Your task to perform on an android device: turn on airplane mode Image 0: 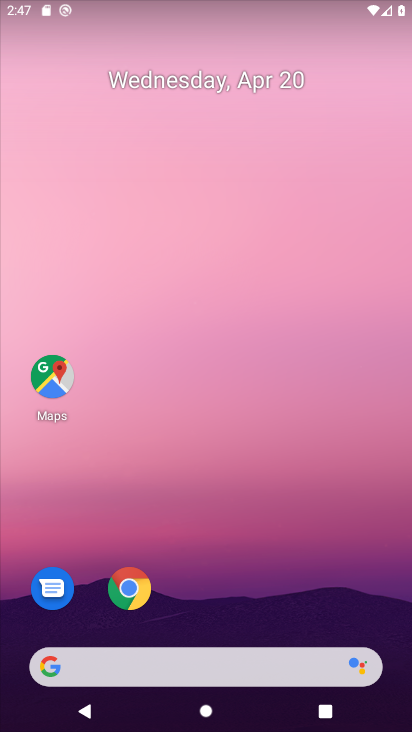
Step 0: drag from (261, 551) to (289, 88)
Your task to perform on an android device: turn on airplane mode Image 1: 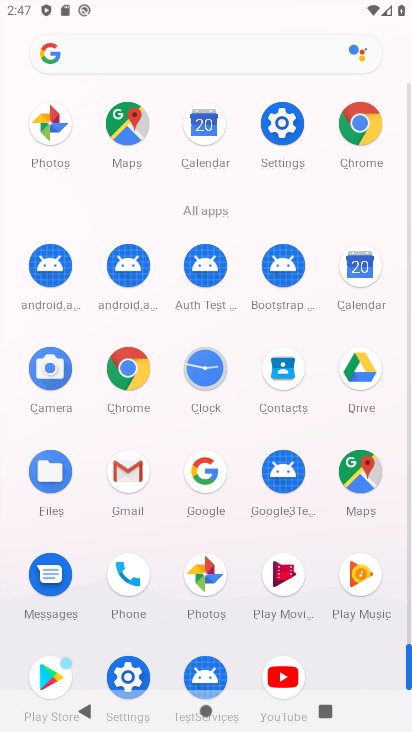
Step 1: drag from (202, 6) to (130, 645)
Your task to perform on an android device: turn on airplane mode Image 2: 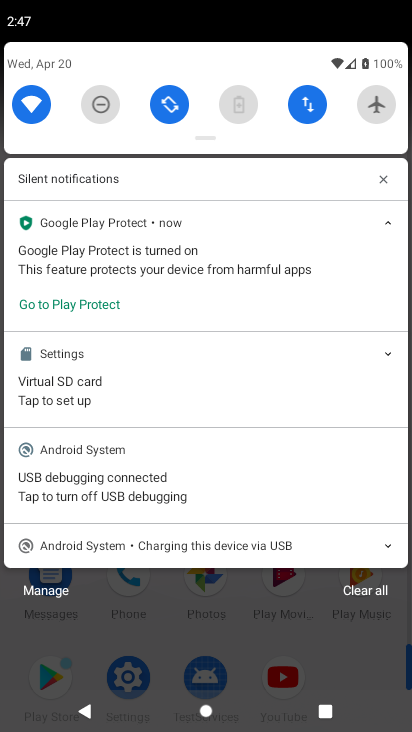
Step 2: drag from (229, 196) to (196, 681)
Your task to perform on an android device: turn on airplane mode Image 3: 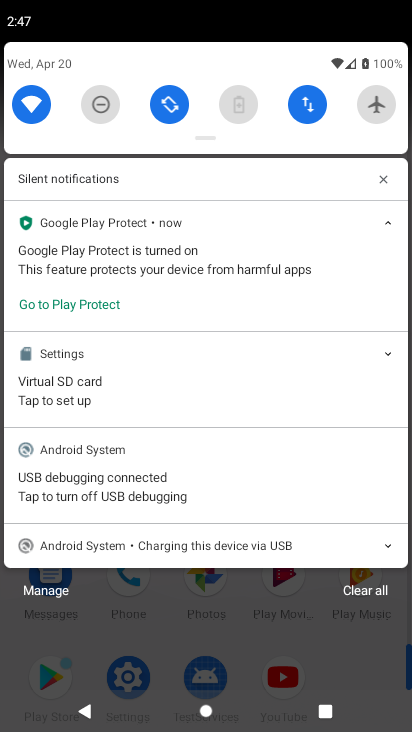
Step 3: drag from (247, 188) to (216, 647)
Your task to perform on an android device: turn on airplane mode Image 4: 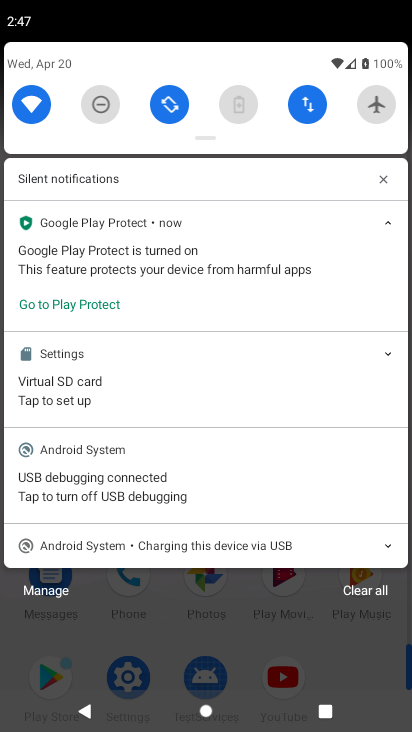
Step 4: drag from (343, 147) to (295, 509)
Your task to perform on an android device: turn on airplane mode Image 5: 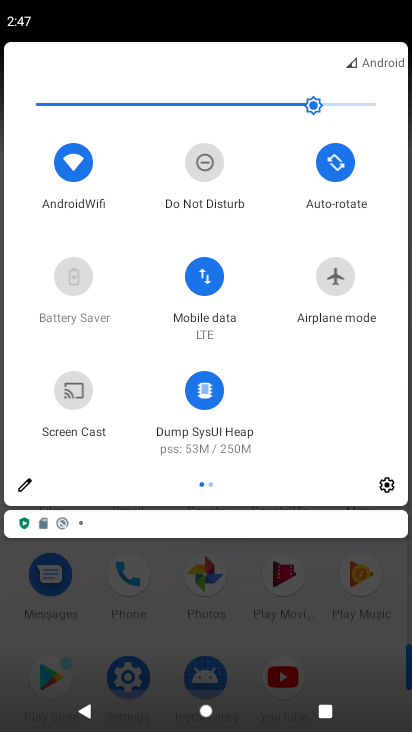
Step 5: click (345, 278)
Your task to perform on an android device: turn on airplane mode Image 6: 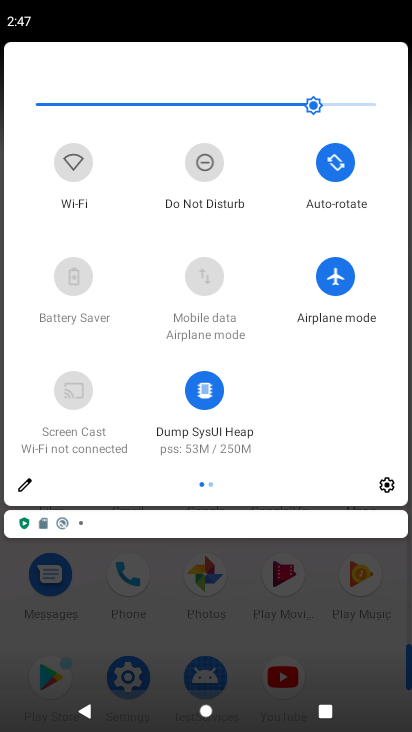
Step 6: task complete